Your task to perform on an android device: Show me the alarms in the clock app Image 0: 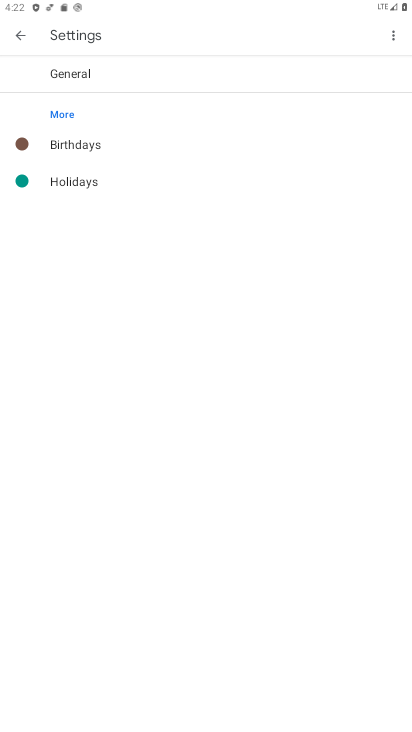
Step 0: press home button
Your task to perform on an android device: Show me the alarms in the clock app Image 1: 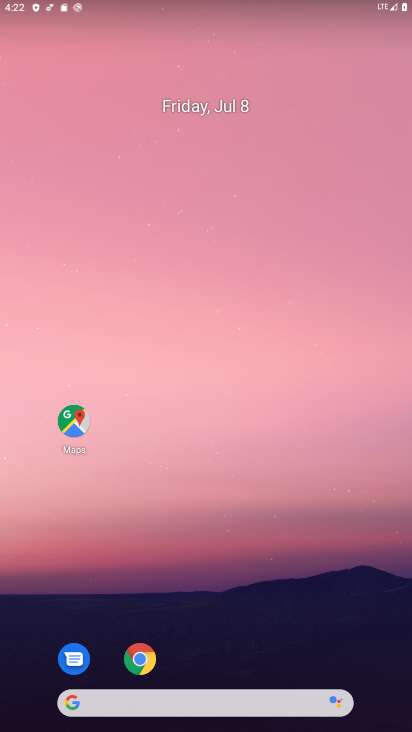
Step 1: drag from (364, 664) to (357, 5)
Your task to perform on an android device: Show me the alarms in the clock app Image 2: 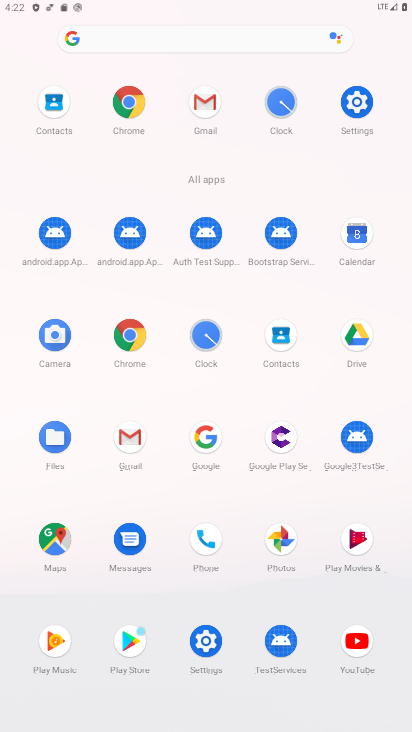
Step 2: click (219, 346)
Your task to perform on an android device: Show me the alarms in the clock app Image 3: 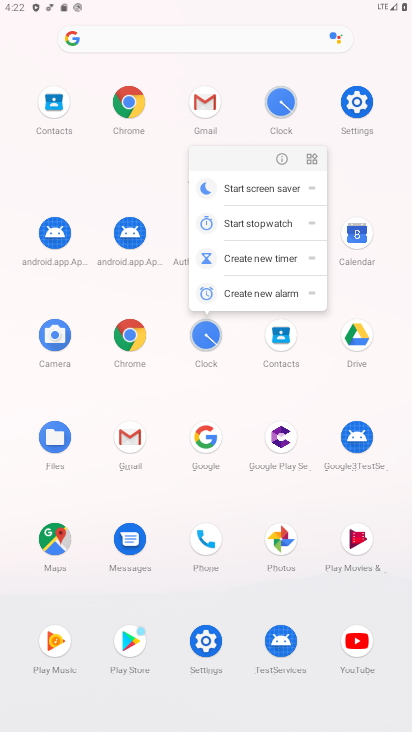
Step 3: click (219, 346)
Your task to perform on an android device: Show me the alarms in the clock app Image 4: 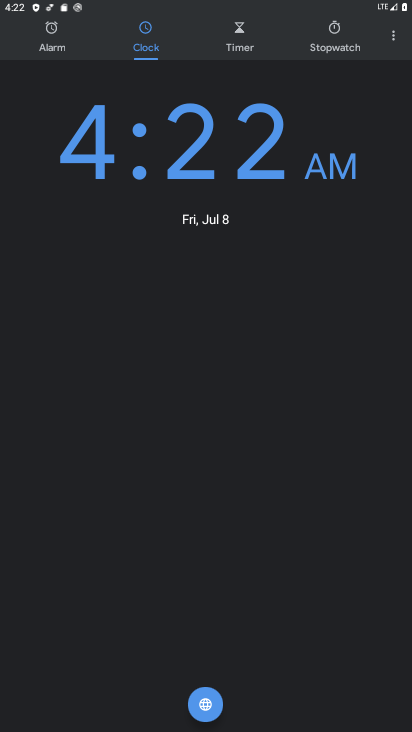
Step 4: click (45, 47)
Your task to perform on an android device: Show me the alarms in the clock app Image 5: 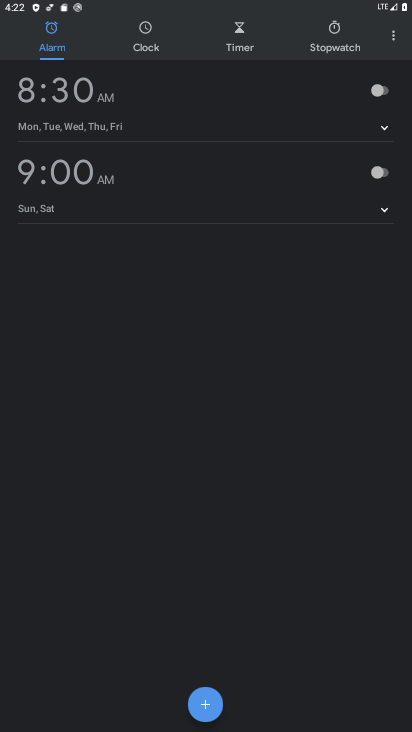
Step 5: task complete